Your task to perform on an android device: Go to privacy settings Image 0: 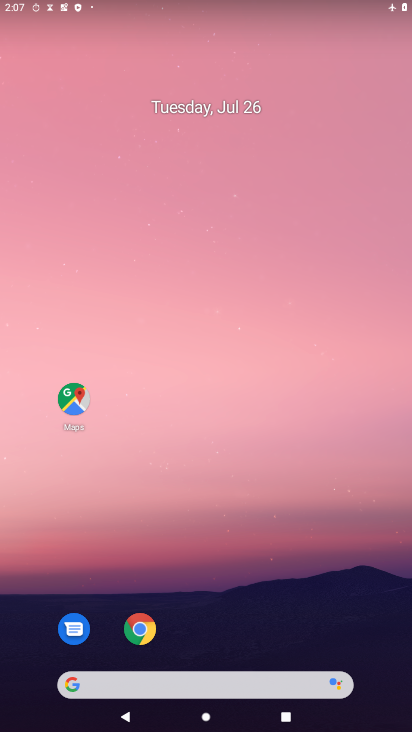
Step 0: drag from (168, 495) to (237, 125)
Your task to perform on an android device: Go to privacy settings Image 1: 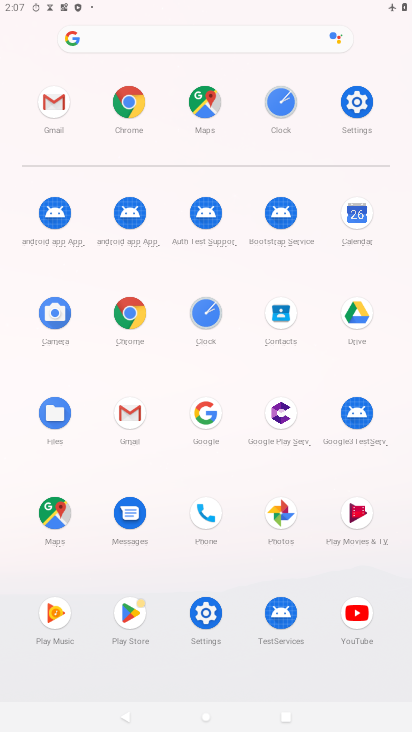
Step 1: click (192, 624)
Your task to perform on an android device: Go to privacy settings Image 2: 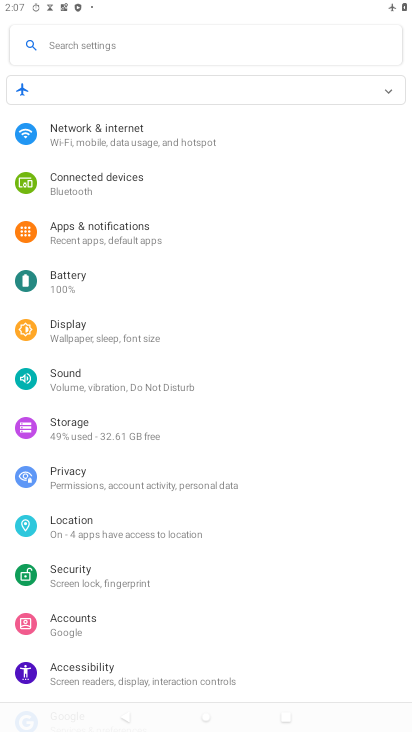
Step 2: click (83, 469)
Your task to perform on an android device: Go to privacy settings Image 3: 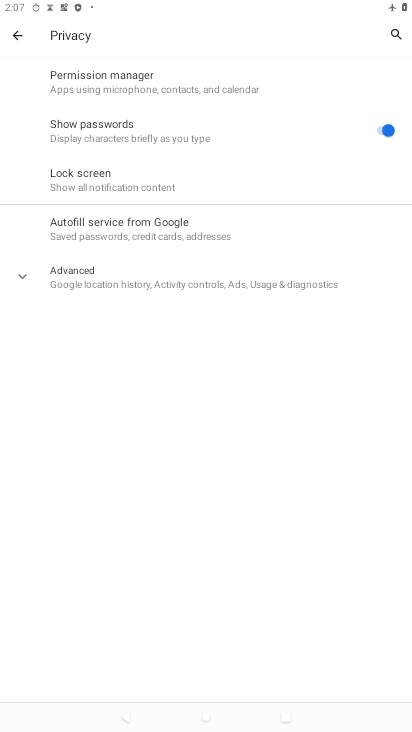
Step 3: task complete